Your task to perform on an android device: turn pop-ups off in chrome Image 0: 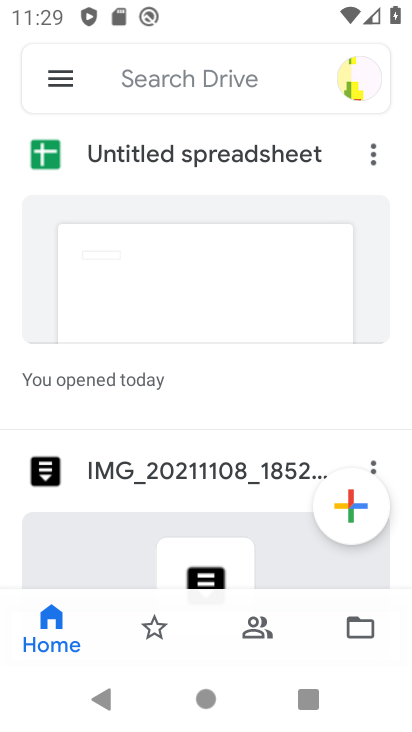
Step 0: press home button
Your task to perform on an android device: turn pop-ups off in chrome Image 1: 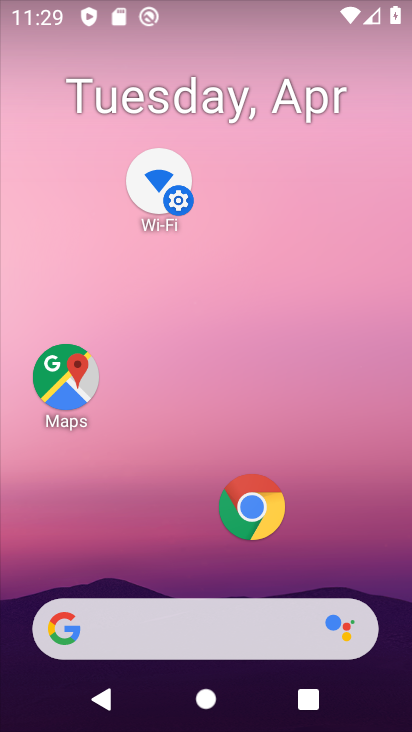
Step 1: click (251, 513)
Your task to perform on an android device: turn pop-ups off in chrome Image 2: 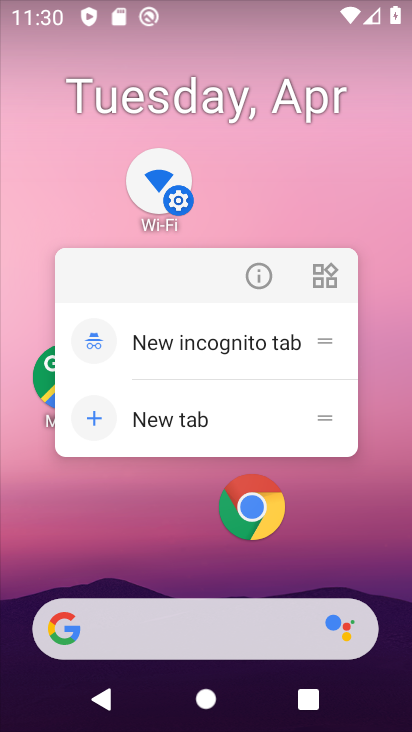
Step 2: click (239, 348)
Your task to perform on an android device: turn pop-ups off in chrome Image 3: 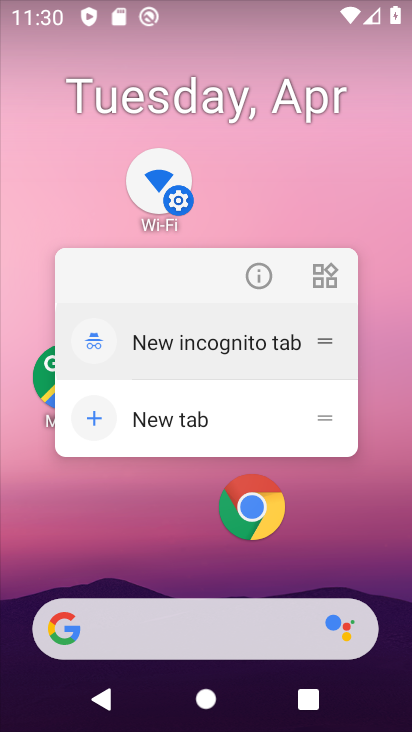
Step 3: click (265, 497)
Your task to perform on an android device: turn pop-ups off in chrome Image 4: 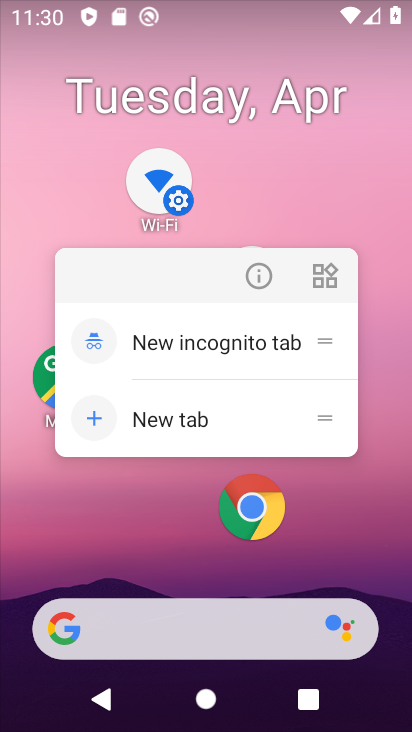
Step 4: click (265, 497)
Your task to perform on an android device: turn pop-ups off in chrome Image 5: 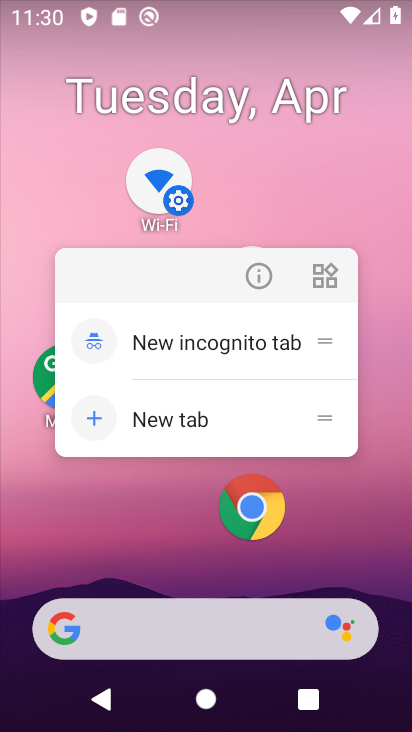
Step 5: click (259, 510)
Your task to perform on an android device: turn pop-ups off in chrome Image 6: 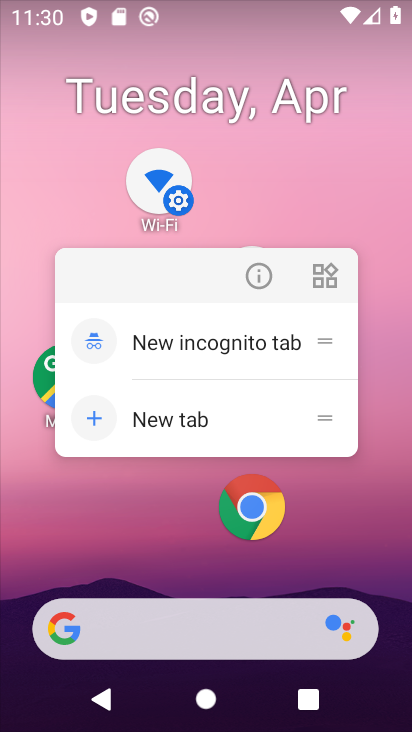
Step 6: click (259, 510)
Your task to perform on an android device: turn pop-ups off in chrome Image 7: 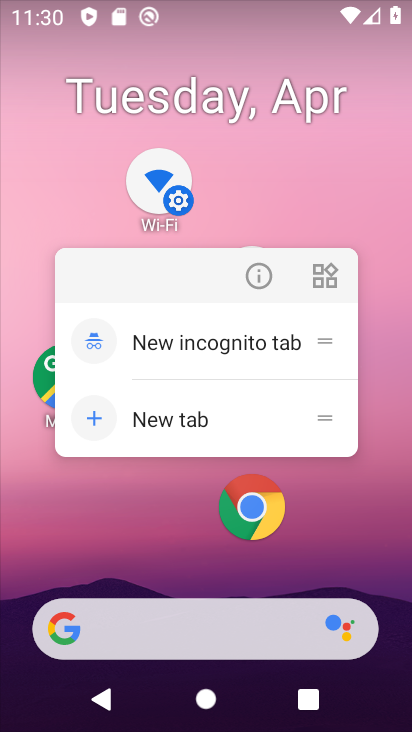
Step 7: click (259, 510)
Your task to perform on an android device: turn pop-ups off in chrome Image 8: 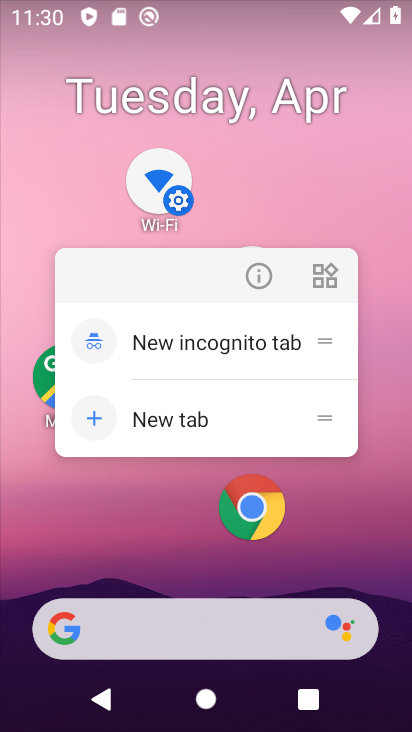
Step 8: click (259, 510)
Your task to perform on an android device: turn pop-ups off in chrome Image 9: 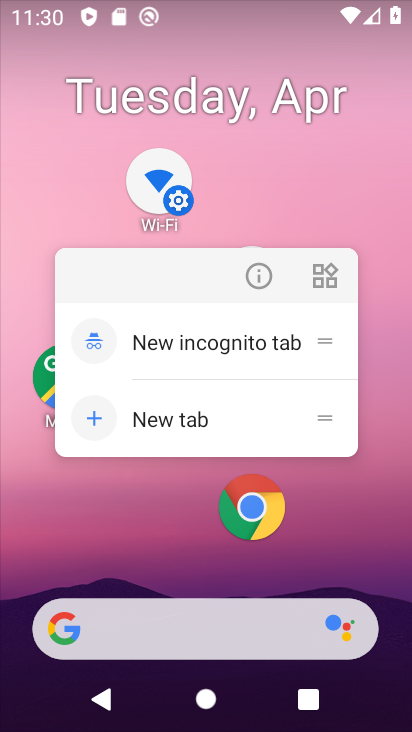
Step 9: click (259, 510)
Your task to perform on an android device: turn pop-ups off in chrome Image 10: 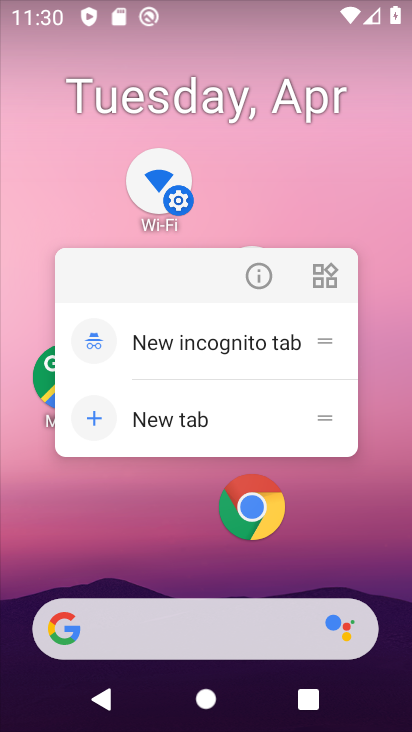
Step 10: click (259, 509)
Your task to perform on an android device: turn pop-ups off in chrome Image 11: 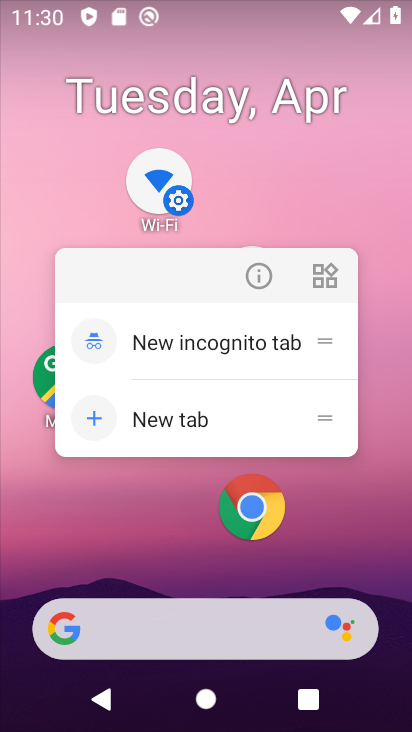
Step 11: click (260, 509)
Your task to perform on an android device: turn pop-ups off in chrome Image 12: 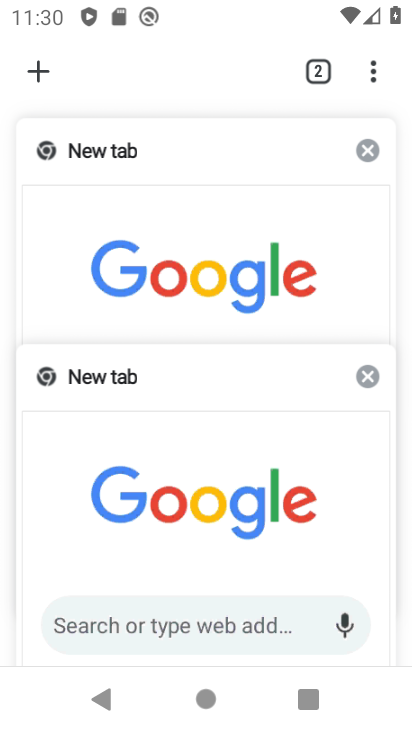
Step 12: click (365, 73)
Your task to perform on an android device: turn pop-ups off in chrome Image 13: 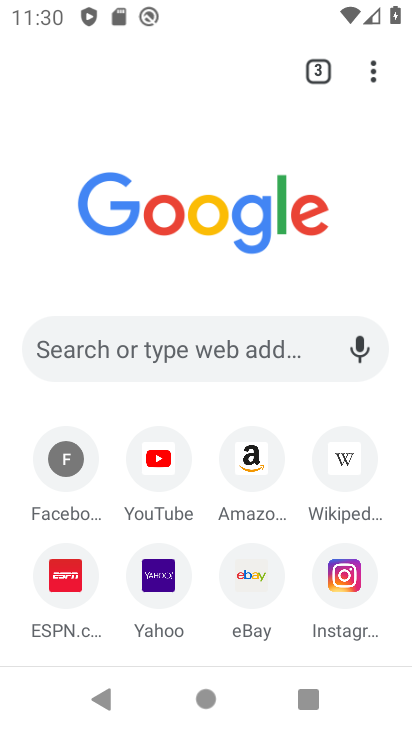
Step 13: click (365, 73)
Your task to perform on an android device: turn pop-ups off in chrome Image 14: 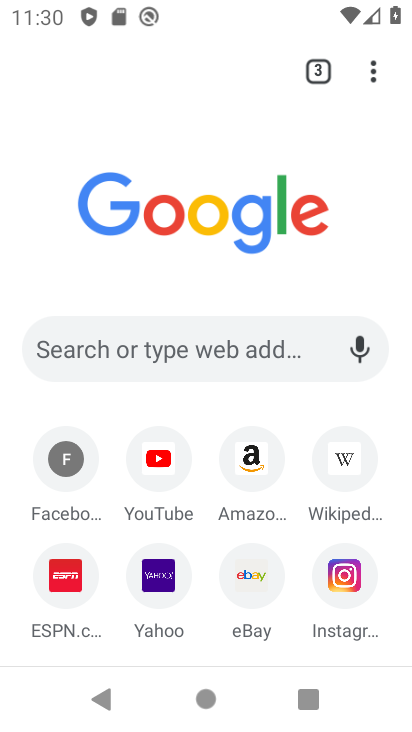
Step 14: click (375, 70)
Your task to perform on an android device: turn pop-ups off in chrome Image 15: 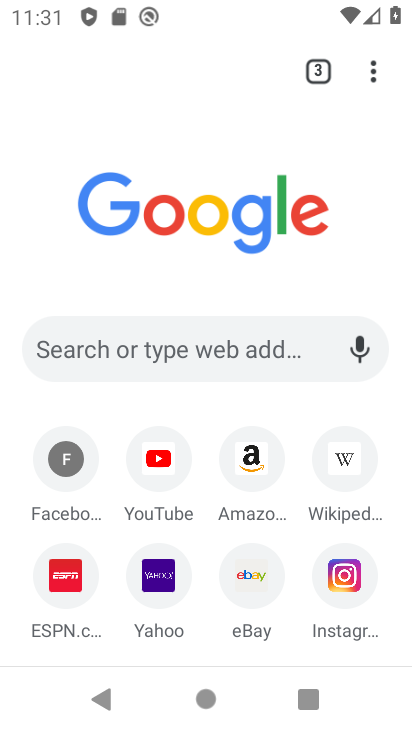
Step 15: click (375, 70)
Your task to perform on an android device: turn pop-ups off in chrome Image 16: 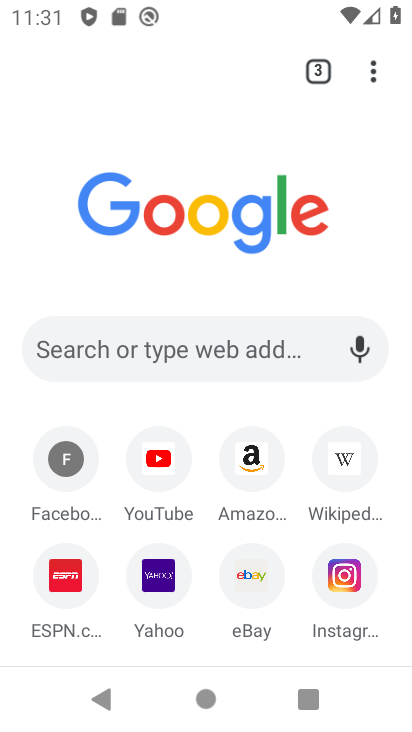
Step 16: click (375, 70)
Your task to perform on an android device: turn pop-ups off in chrome Image 17: 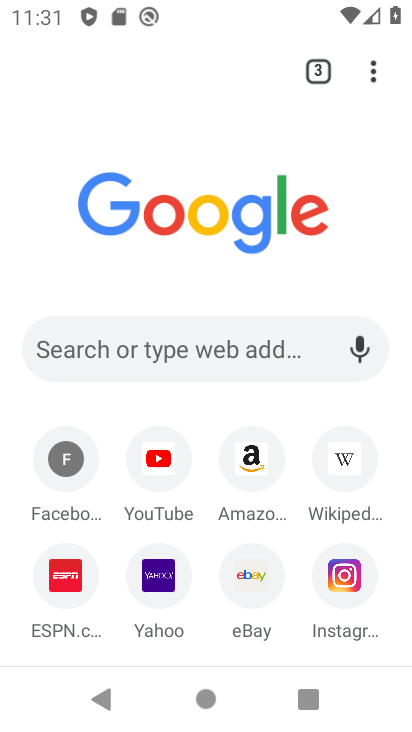
Step 17: click (375, 70)
Your task to perform on an android device: turn pop-ups off in chrome Image 18: 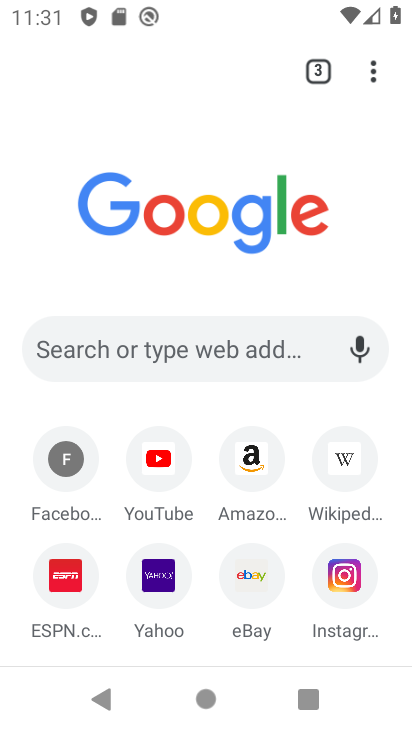
Step 18: click (375, 70)
Your task to perform on an android device: turn pop-ups off in chrome Image 19: 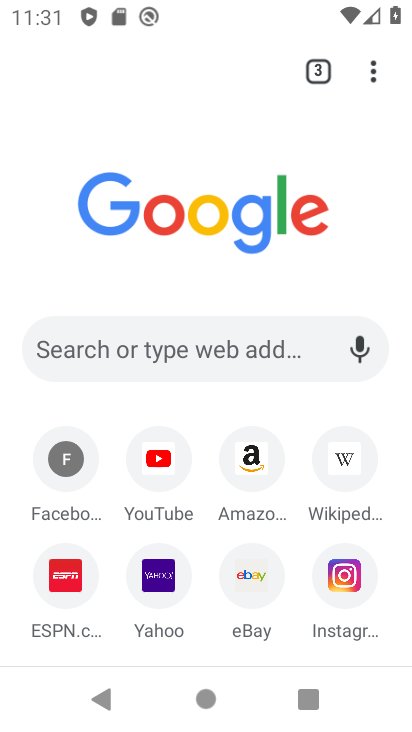
Step 19: click (375, 70)
Your task to perform on an android device: turn pop-ups off in chrome Image 20: 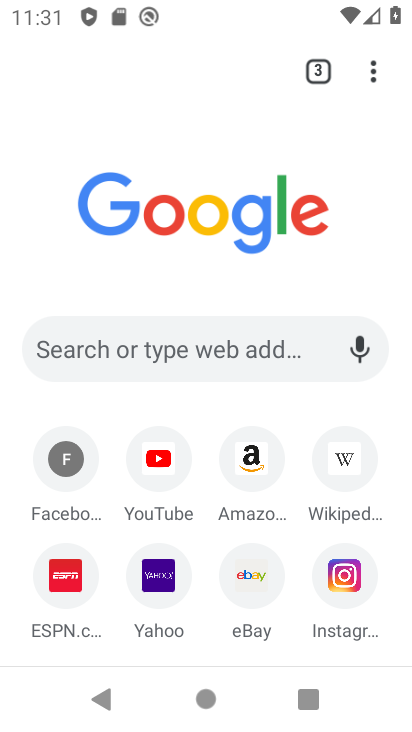
Step 20: click (375, 70)
Your task to perform on an android device: turn pop-ups off in chrome Image 21: 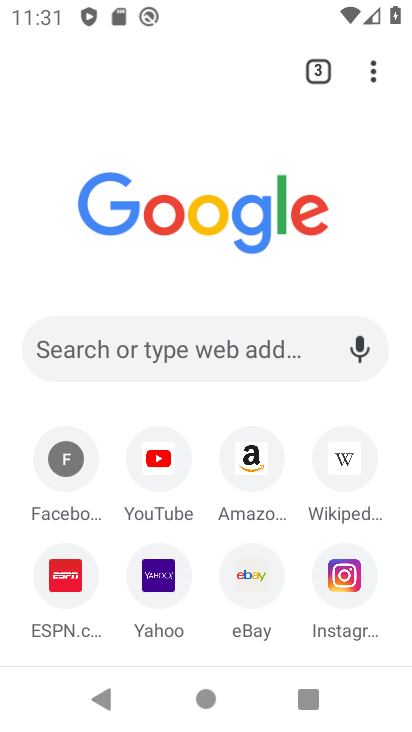
Step 21: click (376, 70)
Your task to perform on an android device: turn pop-ups off in chrome Image 22: 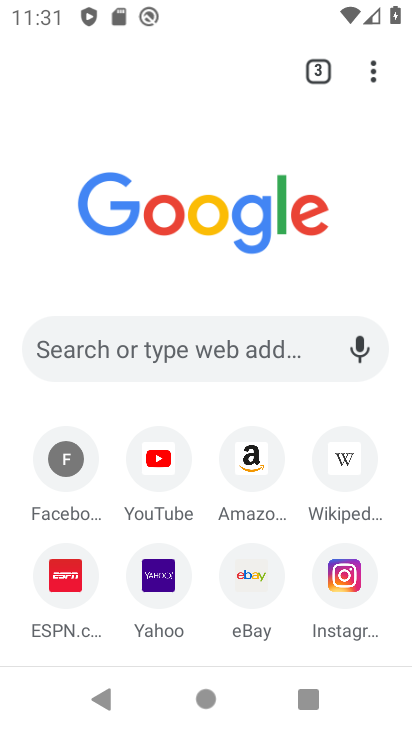
Step 22: click (376, 70)
Your task to perform on an android device: turn pop-ups off in chrome Image 23: 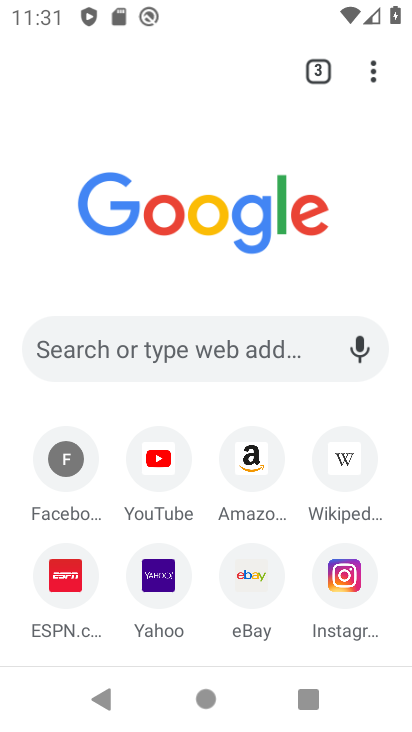
Step 23: click (323, 70)
Your task to perform on an android device: turn pop-ups off in chrome Image 24: 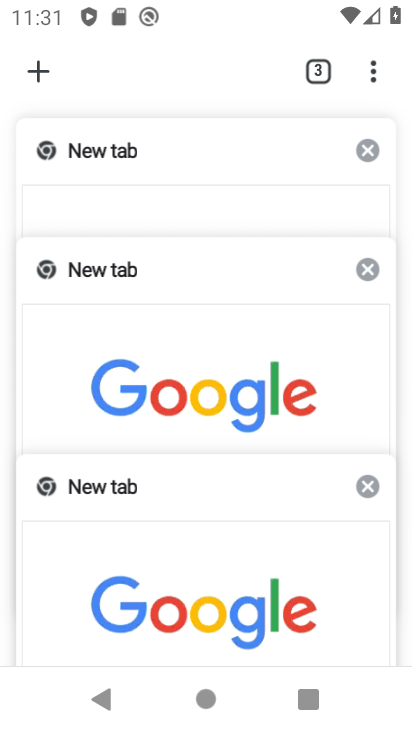
Step 24: click (376, 72)
Your task to perform on an android device: turn pop-ups off in chrome Image 25: 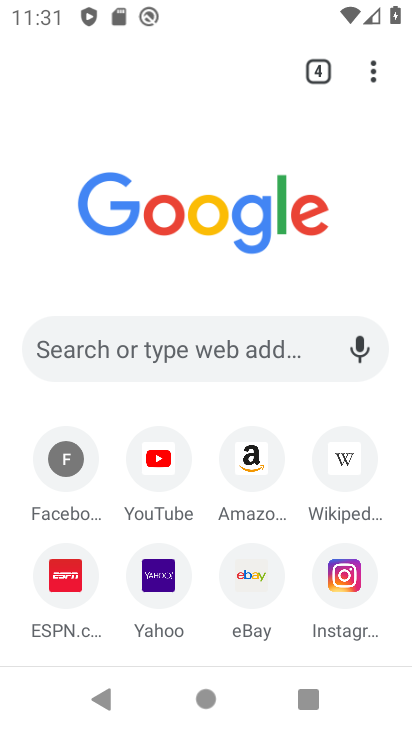
Step 25: click (376, 69)
Your task to perform on an android device: turn pop-ups off in chrome Image 26: 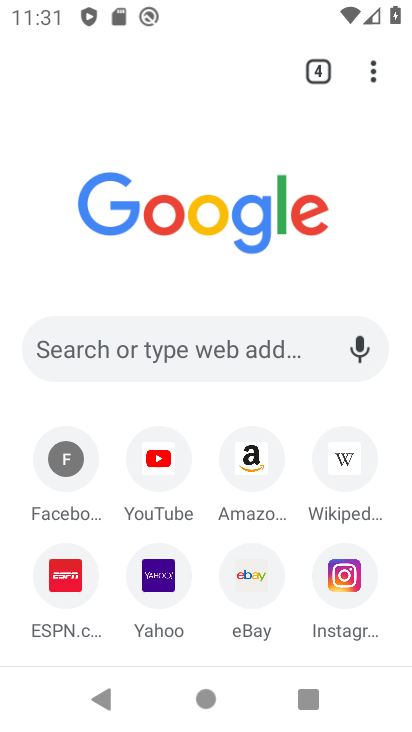
Step 26: click (376, 69)
Your task to perform on an android device: turn pop-ups off in chrome Image 27: 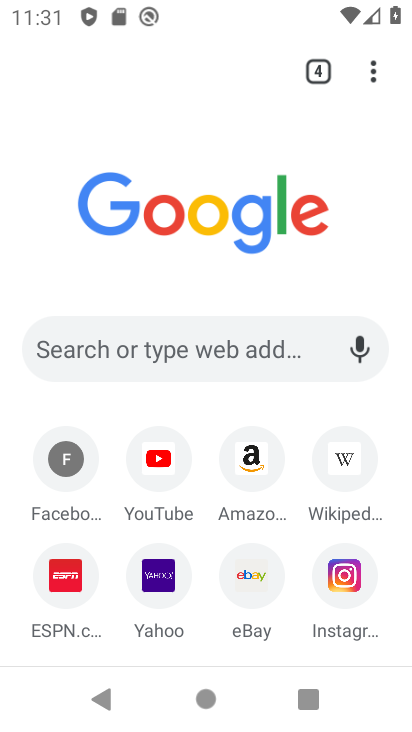
Step 27: click (376, 69)
Your task to perform on an android device: turn pop-ups off in chrome Image 28: 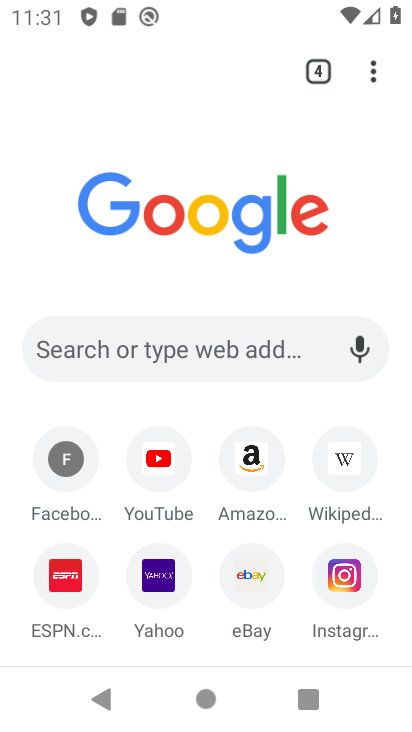
Step 28: click (370, 66)
Your task to perform on an android device: turn pop-ups off in chrome Image 29: 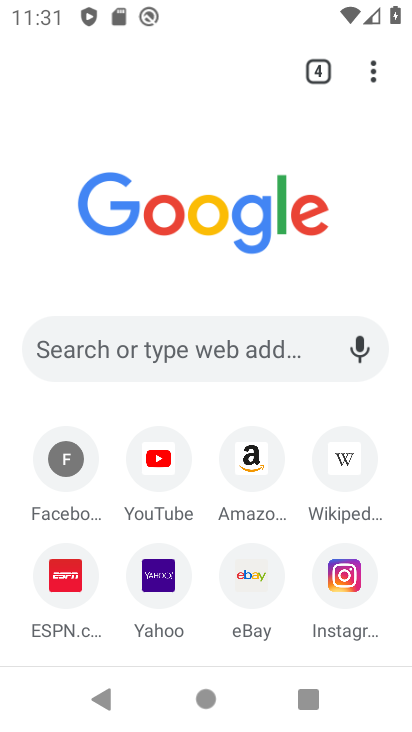
Step 29: click (371, 57)
Your task to perform on an android device: turn pop-ups off in chrome Image 30: 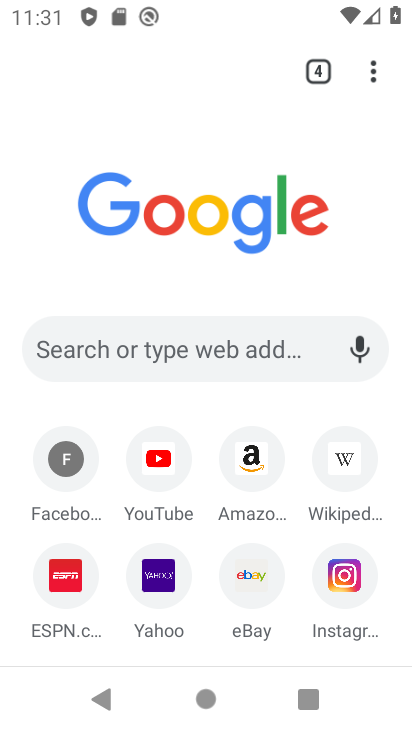
Step 30: click (371, 54)
Your task to perform on an android device: turn pop-ups off in chrome Image 31: 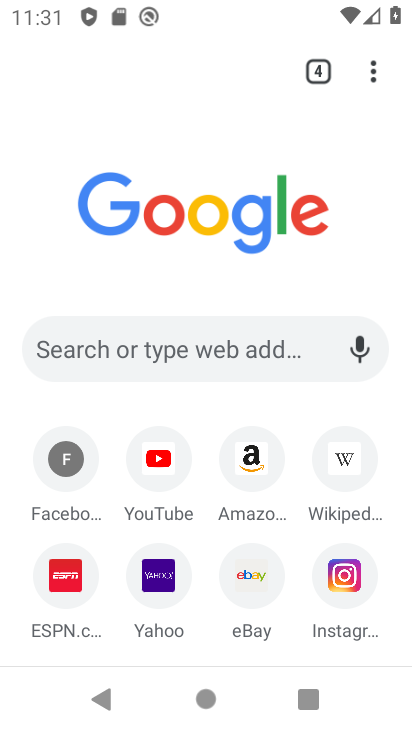
Step 31: click (371, 48)
Your task to perform on an android device: turn pop-ups off in chrome Image 32: 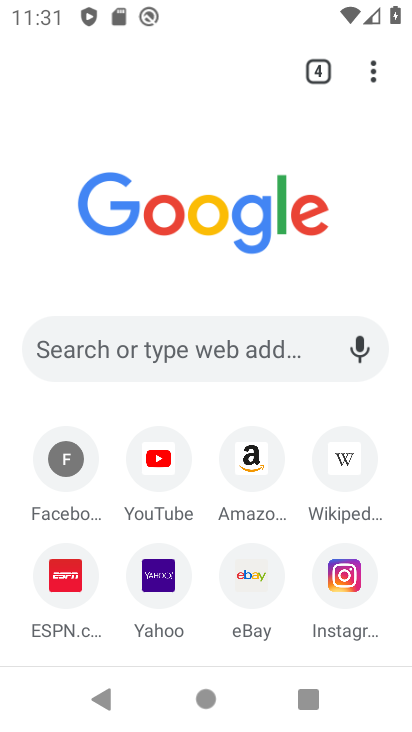
Step 32: click (371, 58)
Your task to perform on an android device: turn pop-ups off in chrome Image 33: 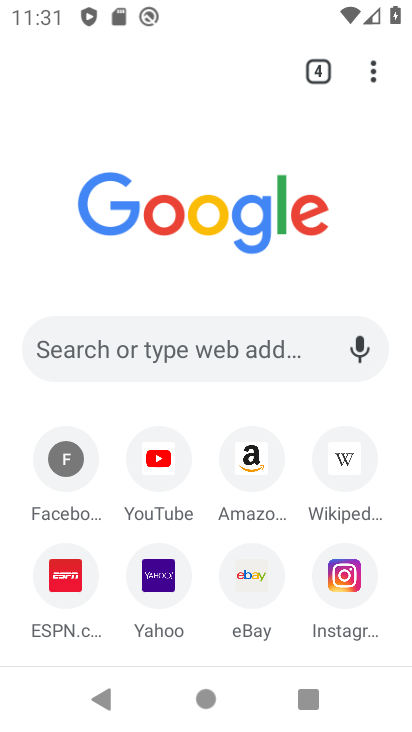
Step 33: click (371, 54)
Your task to perform on an android device: turn pop-ups off in chrome Image 34: 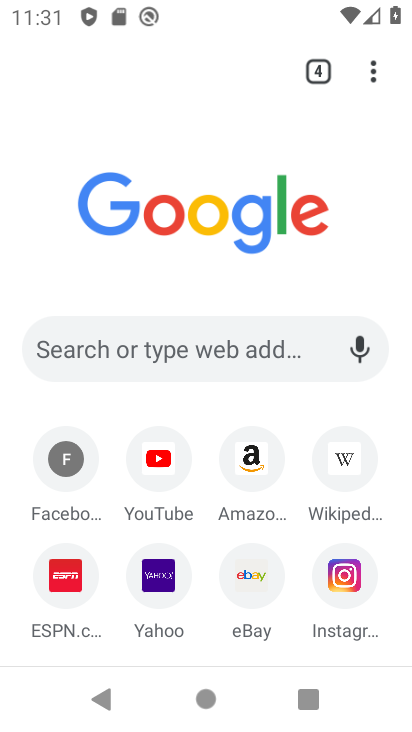
Step 34: click (324, 78)
Your task to perform on an android device: turn pop-ups off in chrome Image 35: 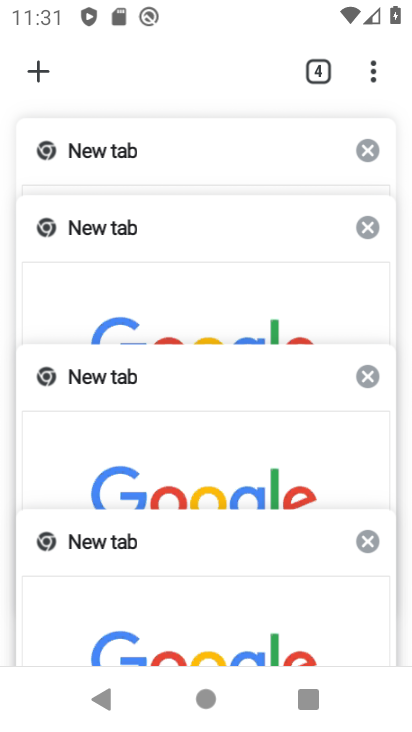
Step 35: click (367, 158)
Your task to perform on an android device: turn pop-ups off in chrome Image 36: 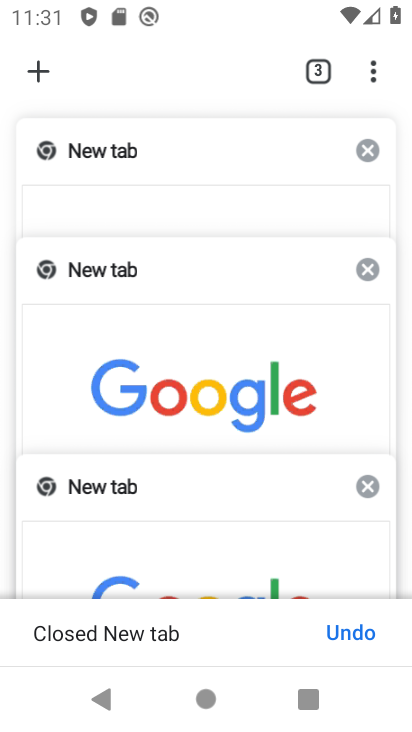
Step 36: click (360, 153)
Your task to perform on an android device: turn pop-ups off in chrome Image 37: 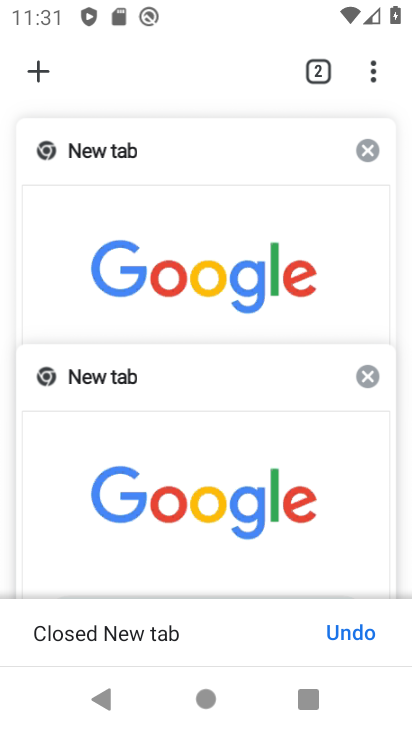
Step 37: click (367, 155)
Your task to perform on an android device: turn pop-ups off in chrome Image 38: 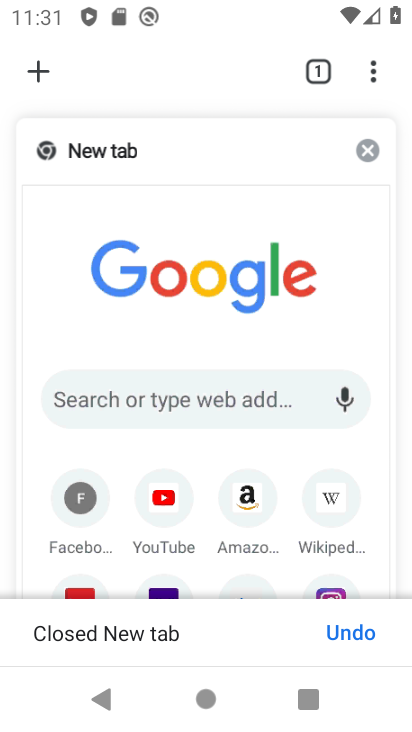
Step 38: click (376, 73)
Your task to perform on an android device: turn pop-ups off in chrome Image 39: 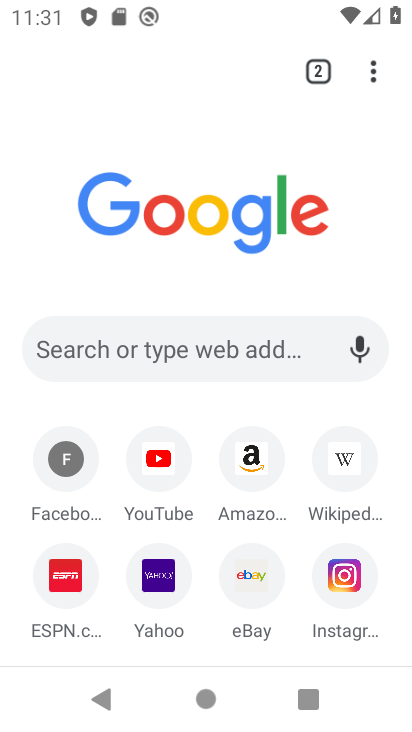
Step 39: click (371, 73)
Your task to perform on an android device: turn pop-ups off in chrome Image 40: 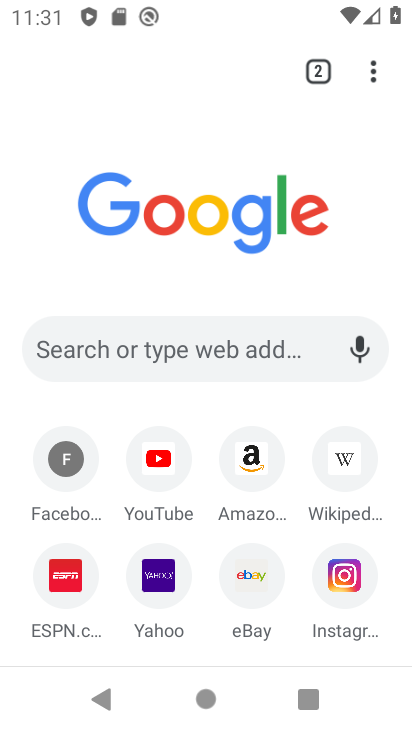
Step 40: click (371, 73)
Your task to perform on an android device: turn pop-ups off in chrome Image 41: 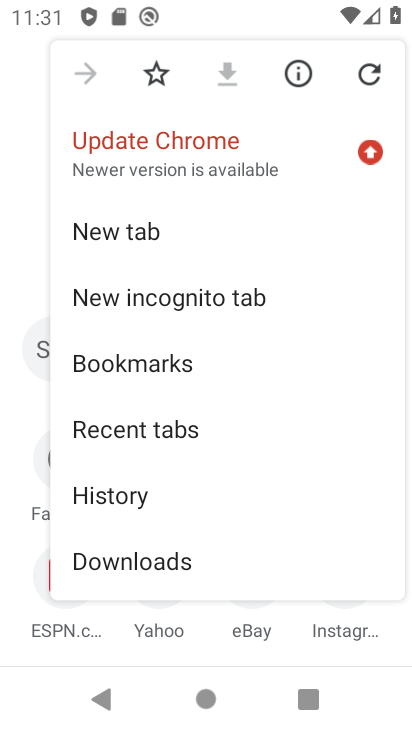
Step 41: drag from (125, 518) to (191, 210)
Your task to perform on an android device: turn pop-ups off in chrome Image 42: 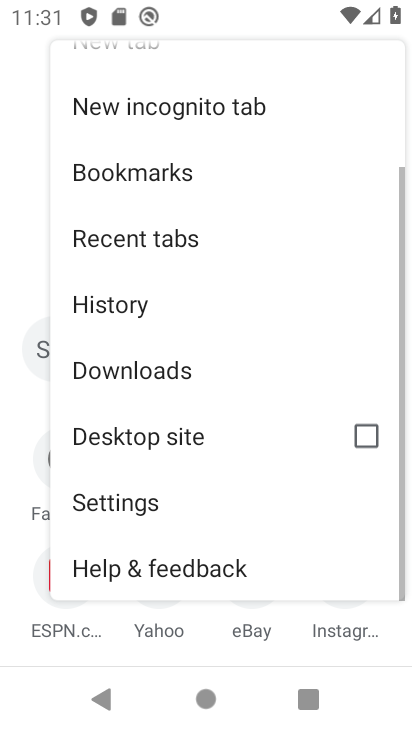
Step 42: click (131, 489)
Your task to perform on an android device: turn pop-ups off in chrome Image 43: 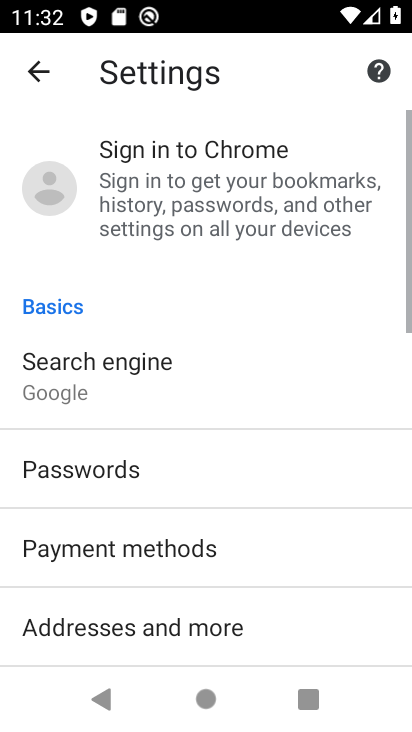
Step 43: drag from (169, 543) to (223, 259)
Your task to perform on an android device: turn pop-ups off in chrome Image 44: 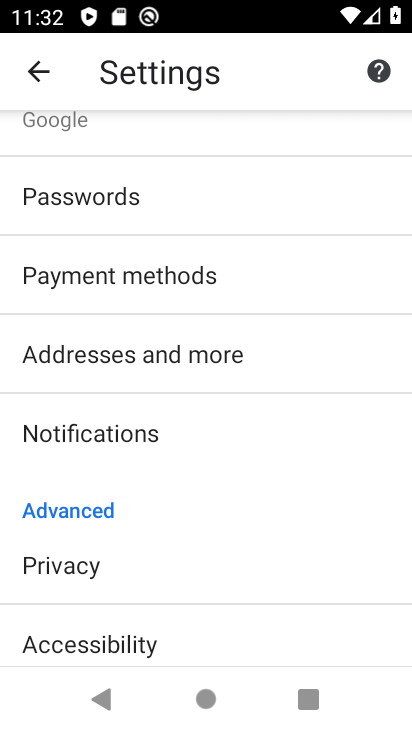
Step 44: drag from (240, 614) to (240, 322)
Your task to perform on an android device: turn pop-ups off in chrome Image 45: 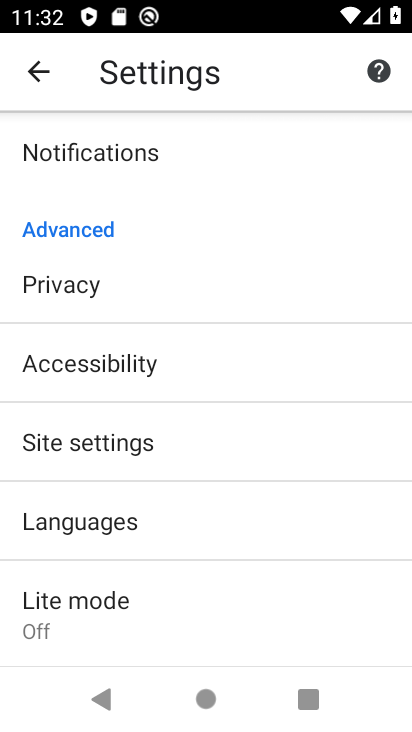
Step 45: click (142, 445)
Your task to perform on an android device: turn pop-ups off in chrome Image 46: 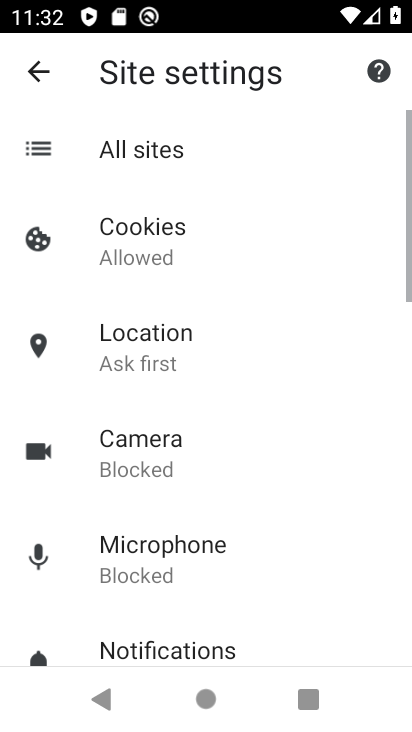
Step 46: drag from (97, 560) to (136, 303)
Your task to perform on an android device: turn pop-ups off in chrome Image 47: 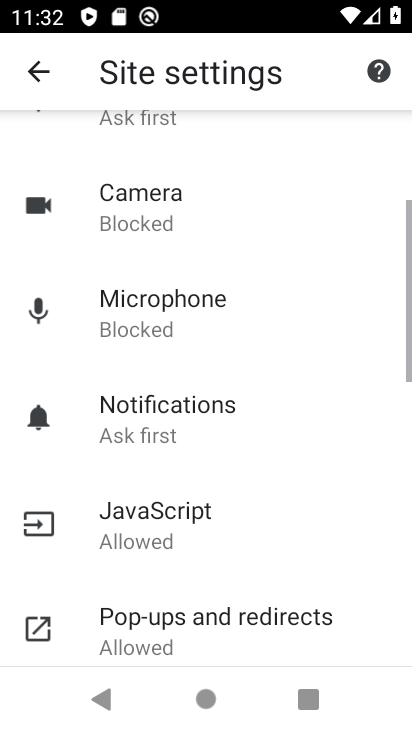
Step 47: drag from (238, 619) to (280, 311)
Your task to perform on an android device: turn pop-ups off in chrome Image 48: 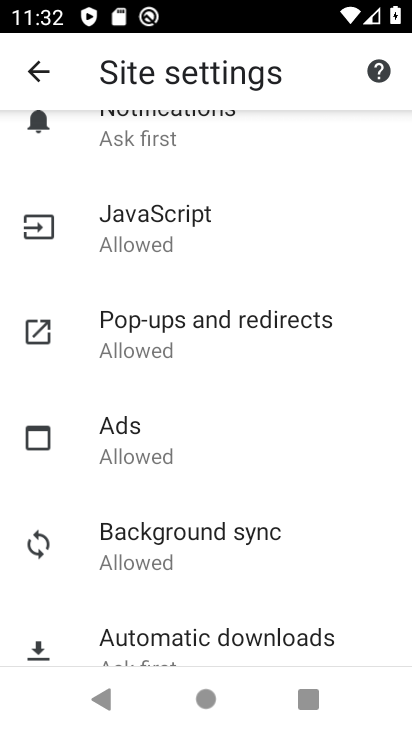
Step 48: click (115, 340)
Your task to perform on an android device: turn pop-ups off in chrome Image 49: 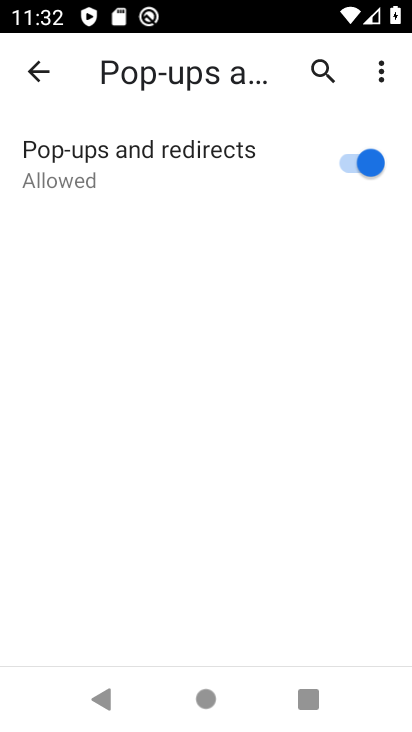
Step 49: click (366, 159)
Your task to perform on an android device: turn pop-ups off in chrome Image 50: 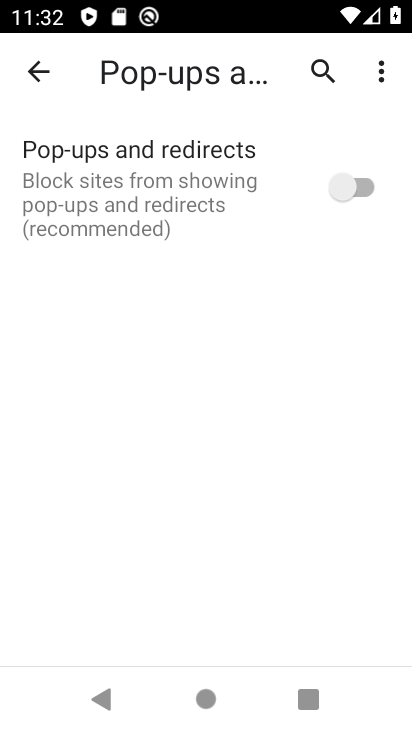
Step 50: task complete